Your task to perform on an android device: turn off location Image 0: 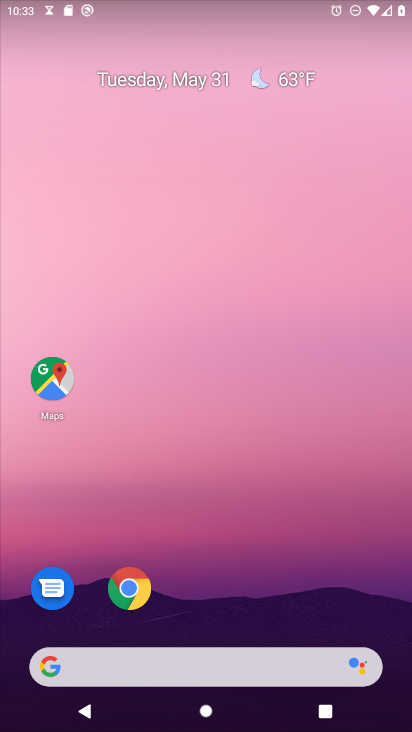
Step 0: drag from (261, 588) to (252, 51)
Your task to perform on an android device: turn off location Image 1: 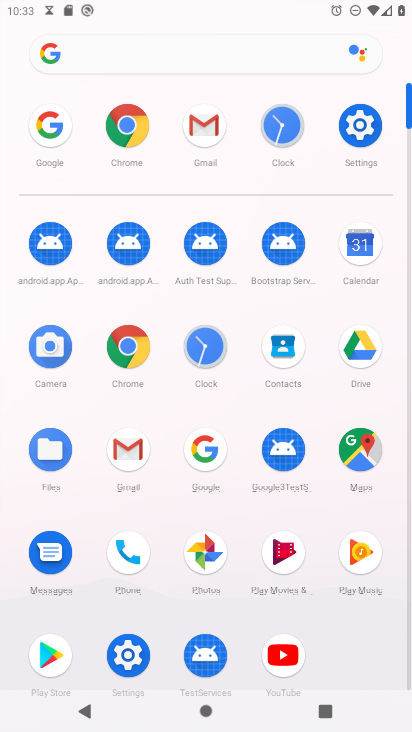
Step 1: click (360, 126)
Your task to perform on an android device: turn off location Image 2: 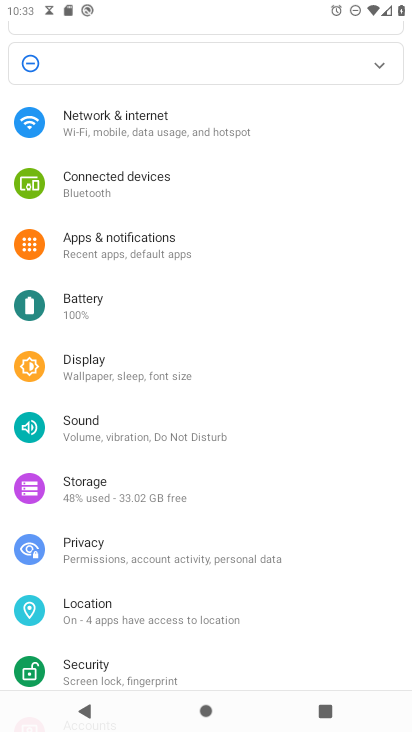
Step 2: drag from (138, 599) to (148, 534)
Your task to perform on an android device: turn off location Image 3: 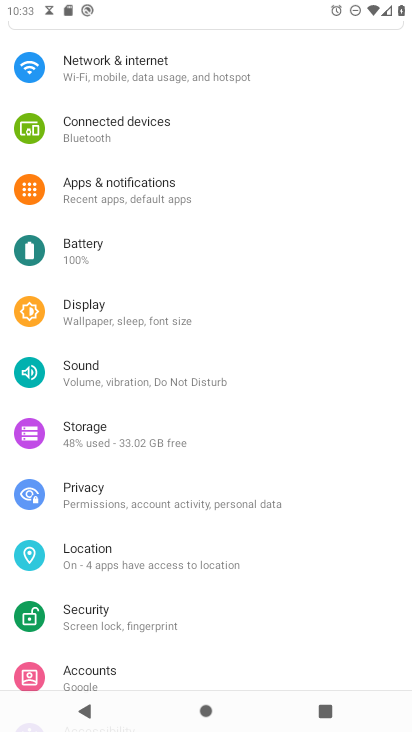
Step 3: click (140, 564)
Your task to perform on an android device: turn off location Image 4: 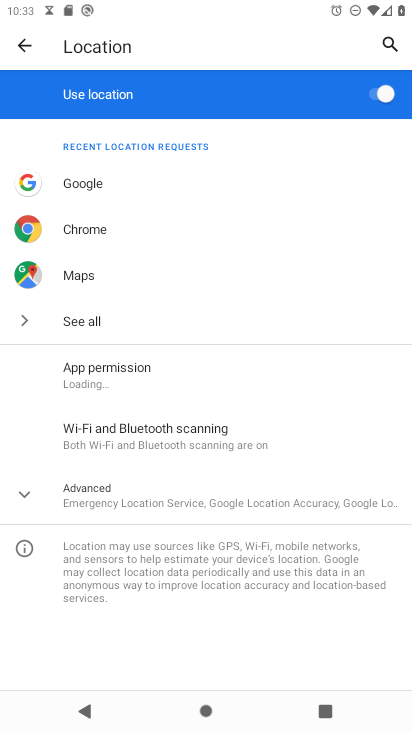
Step 4: click (377, 102)
Your task to perform on an android device: turn off location Image 5: 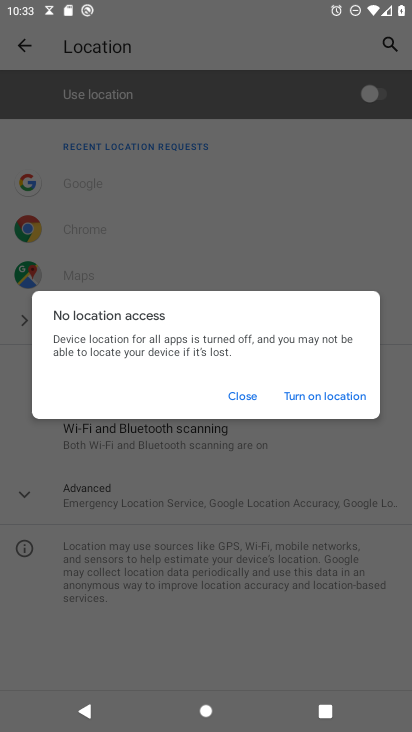
Step 5: click (236, 394)
Your task to perform on an android device: turn off location Image 6: 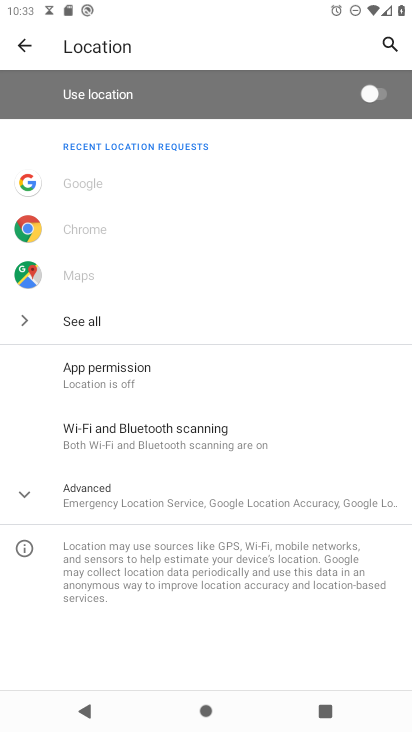
Step 6: task complete